Your task to perform on an android device: turn notification dots on Image 0: 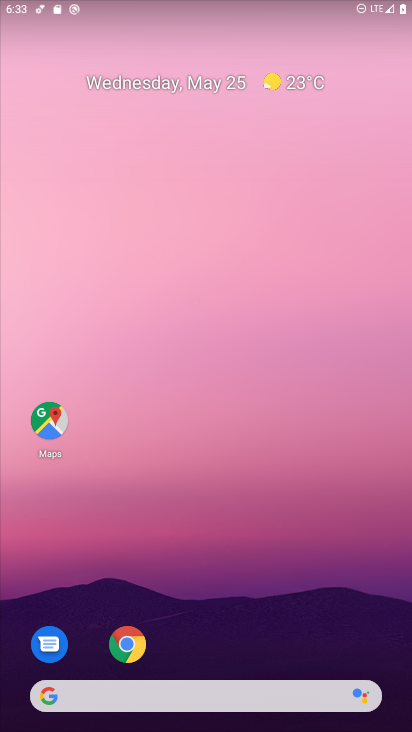
Step 0: drag from (364, 646) to (314, 54)
Your task to perform on an android device: turn notification dots on Image 1: 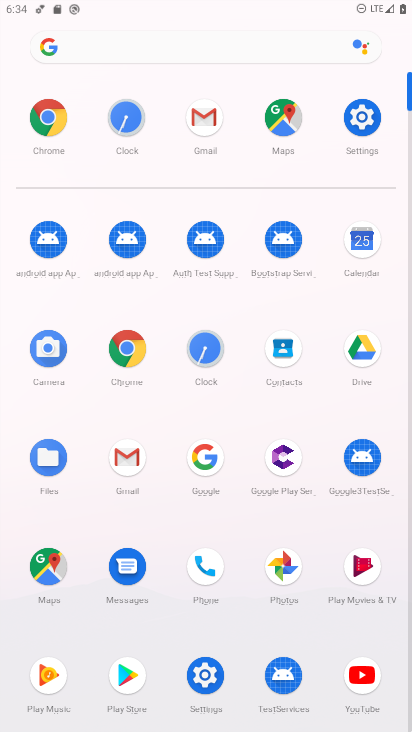
Step 1: click (197, 658)
Your task to perform on an android device: turn notification dots on Image 2: 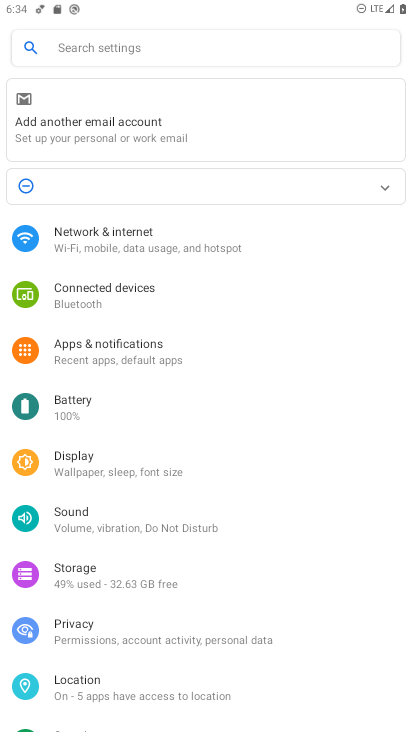
Step 2: click (125, 348)
Your task to perform on an android device: turn notification dots on Image 3: 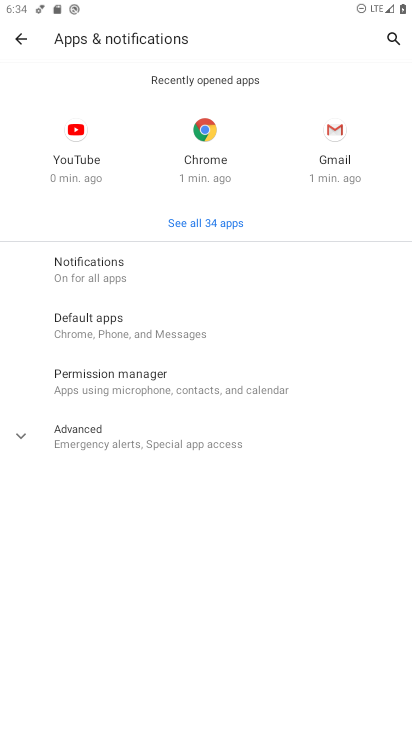
Step 3: click (181, 264)
Your task to perform on an android device: turn notification dots on Image 4: 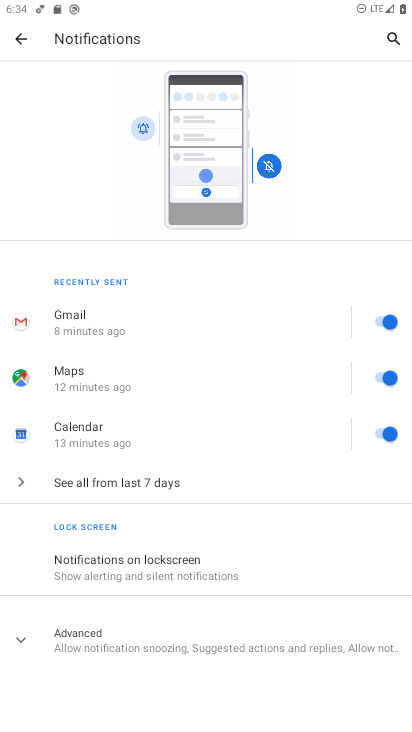
Step 4: click (196, 645)
Your task to perform on an android device: turn notification dots on Image 5: 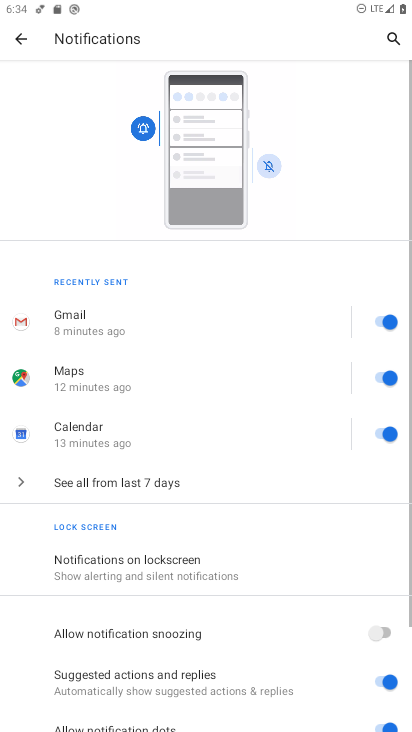
Step 5: task complete